Your task to perform on an android device: Search for "asus rog" on ebay.com, select the first entry, and add it to the cart. Image 0: 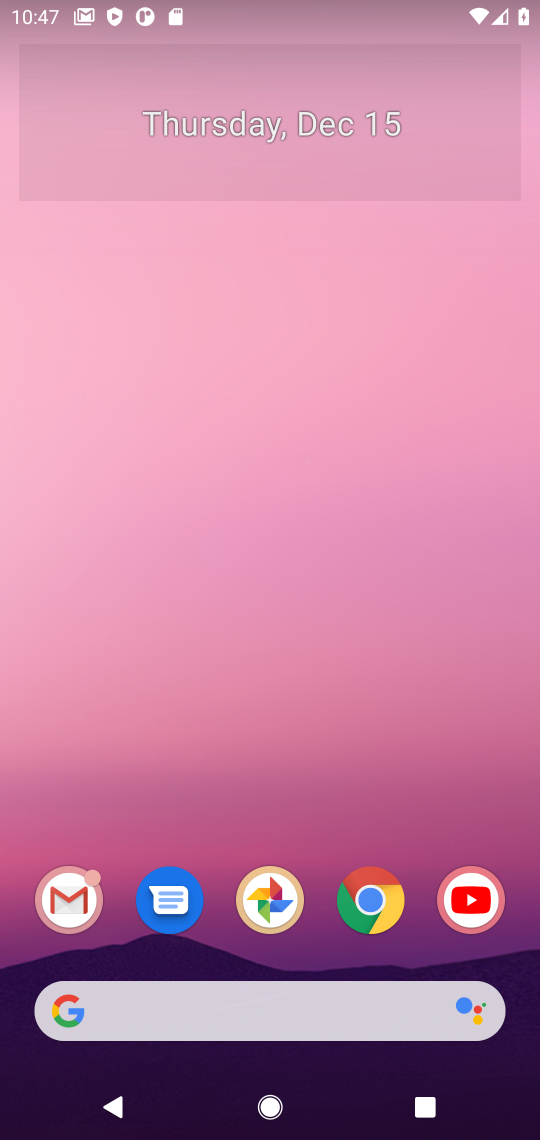
Step 0: click (377, 905)
Your task to perform on an android device: Search for "asus rog" on ebay.com, select the first entry, and add it to the cart. Image 1: 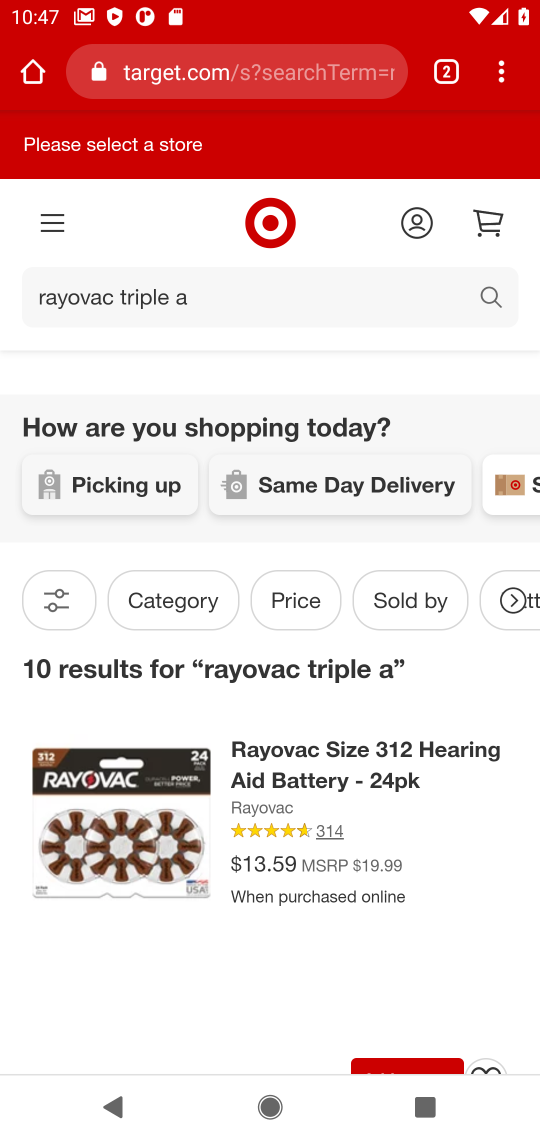
Step 1: click (174, 90)
Your task to perform on an android device: Search for "asus rog" on ebay.com, select the first entry, and add it to the cart. Image 2: 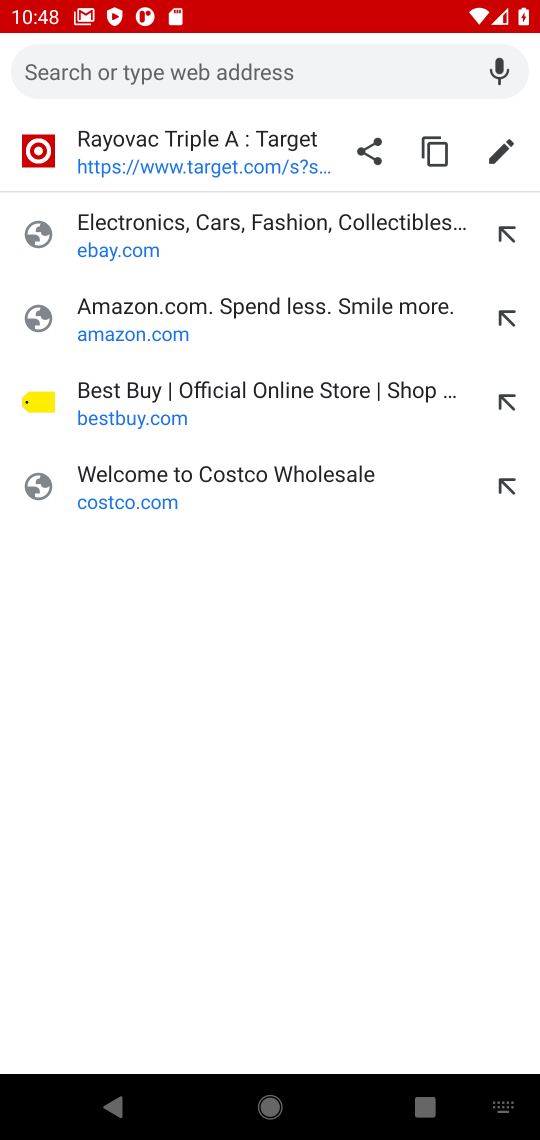
Step 2: type "ebay.com"
Your task to perform on an android device: Search for "asus rog" on ebay.com, select the first entry, and add it to the cart. Image 3: 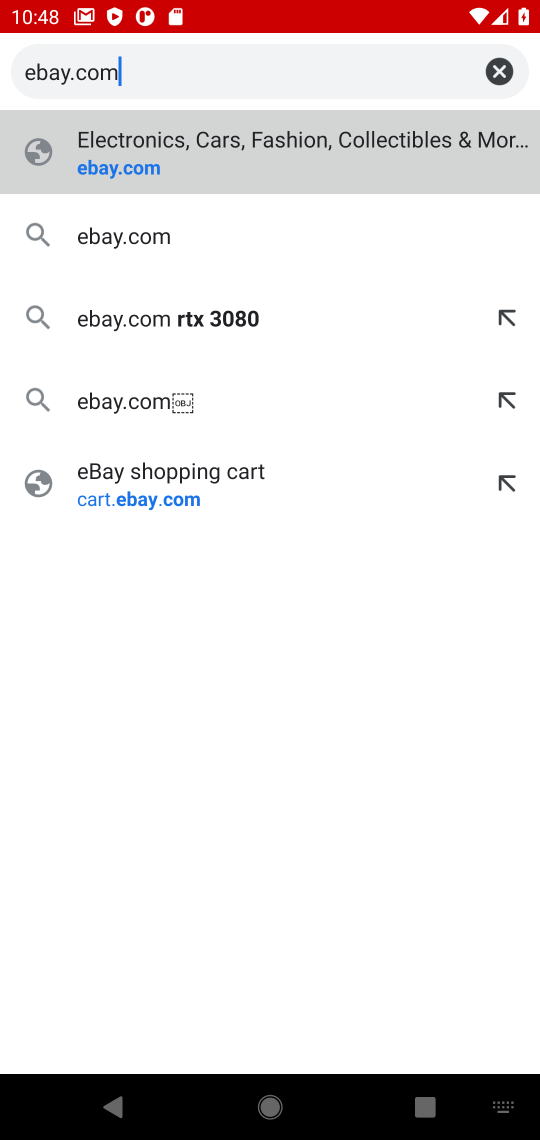
Step 3: click (166, 169)
Your task to perform on an android device: Search for "asus rog" on ebay.com, select the first entry, and add it to the cart. Image 4: 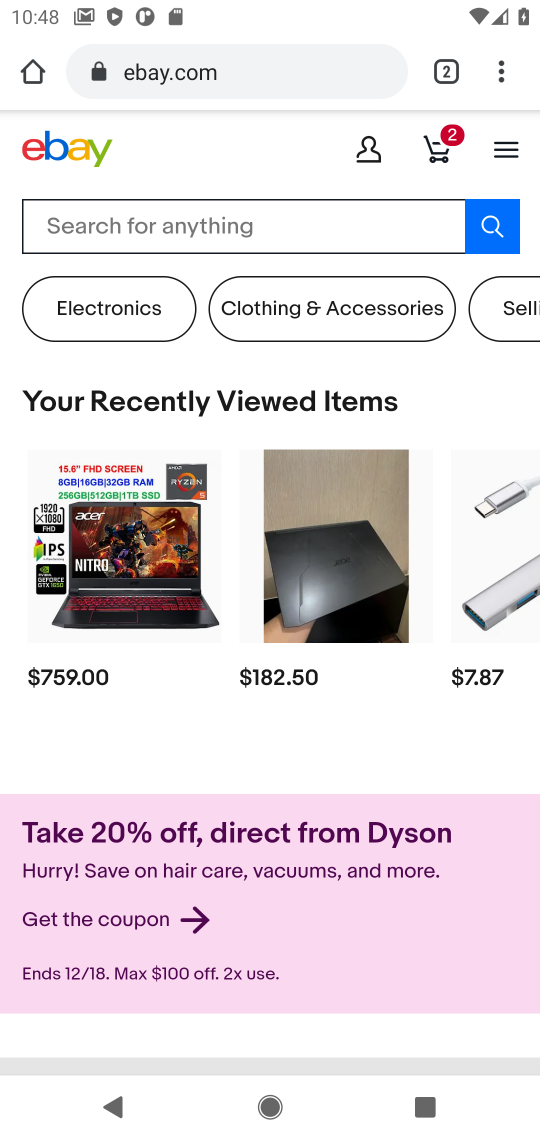
Step 4: click (166, 169)
Your task to perform on an android device: Search for "asus rog" on ebay.com, select the first entry, and add it to the cart. Image 5: 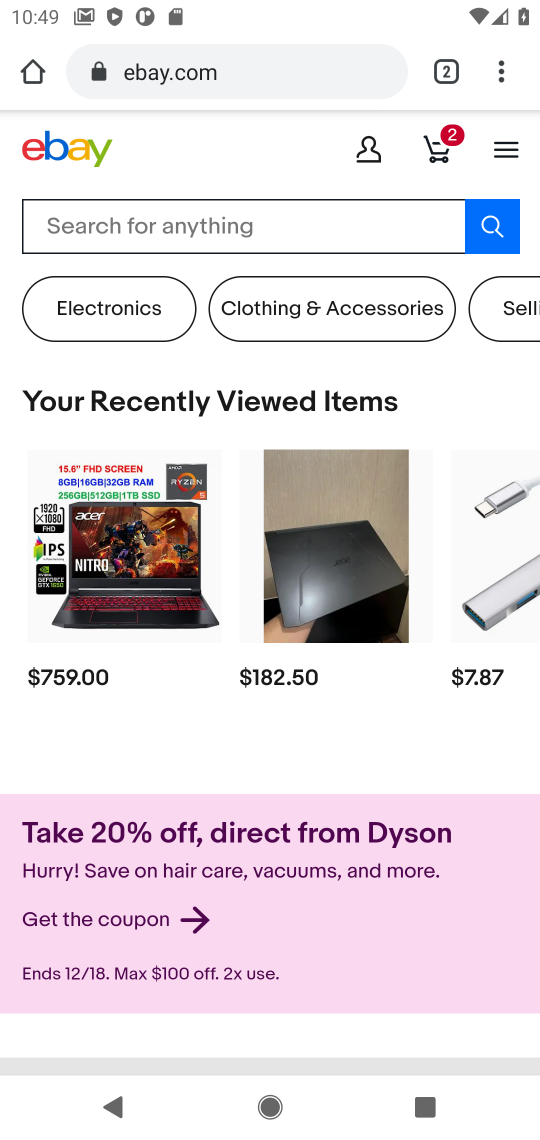
Step 5: click (253, 245)
Your task to perform on an android device: Search for "asus rog" on ebay.com, select the first entry, and add it to the cart. Image 6: 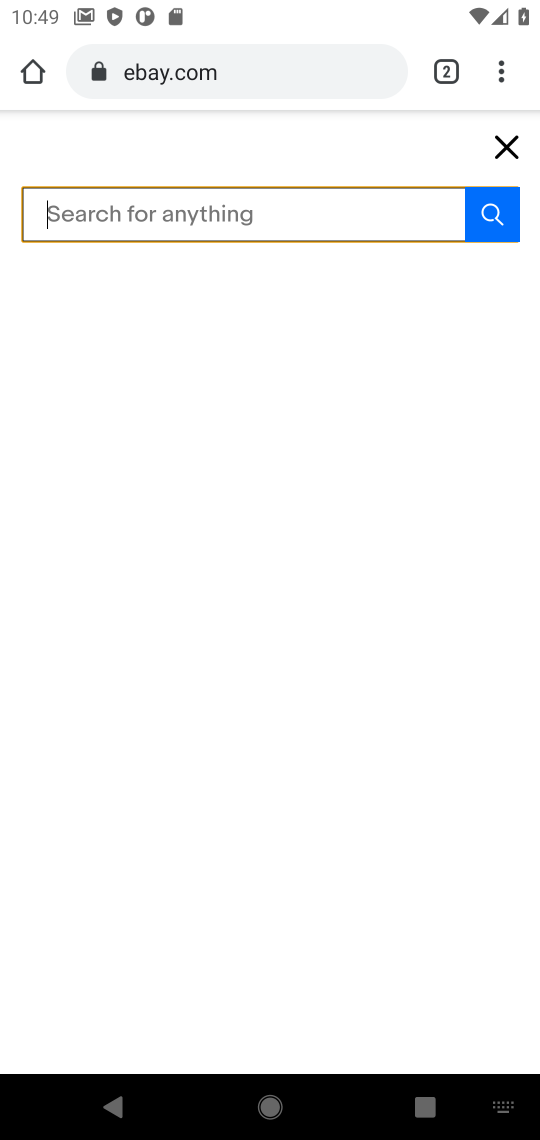
Step 6: type "asus rog"
Your task to perform on an android device: Search for "asus rog" on ebay.com, select the first entry, and add it to the cart. Image 7: 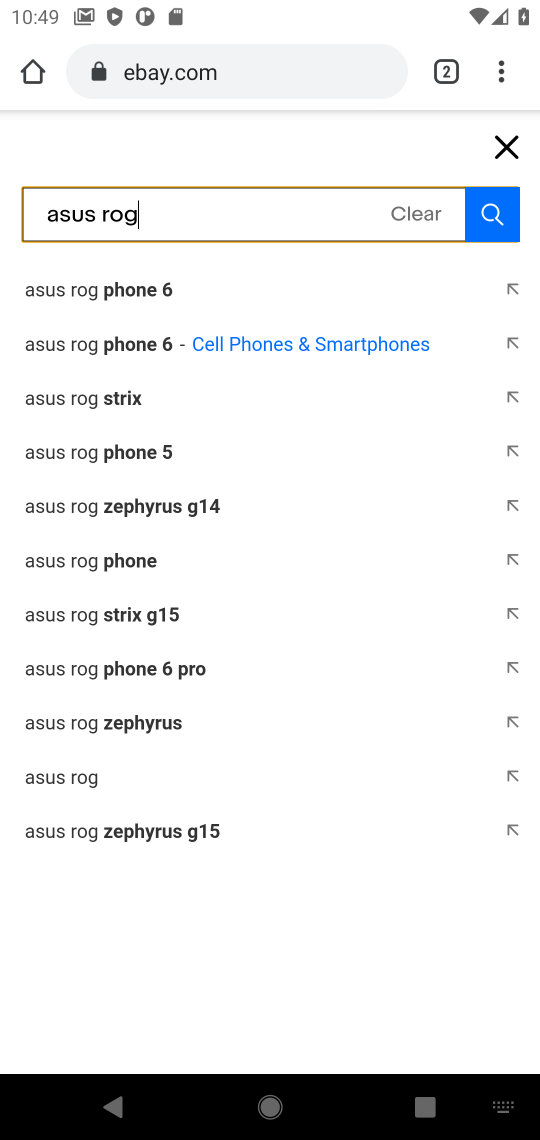
Step 7: click (502, 227)
Your task to perform on an android device: Search for "asus rog" on ebay.com, select the first entry, and add it to the cart. Image 8: 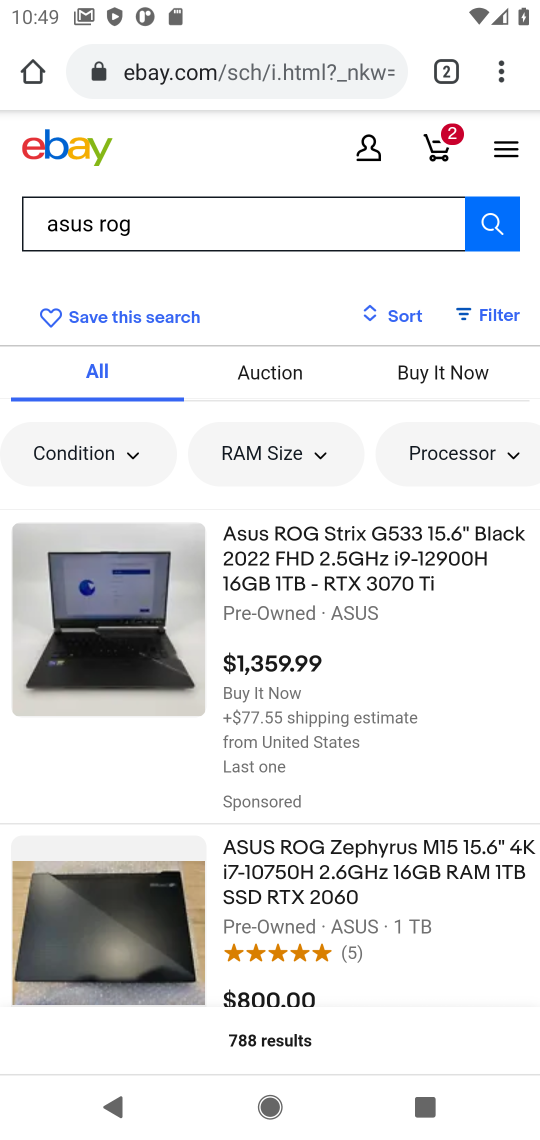
Step 8: click (290, 591)
Your task to perform on an android device: Search for "asus rog" on ebay.com, select the first entry, and add it to the cart. Image 9: 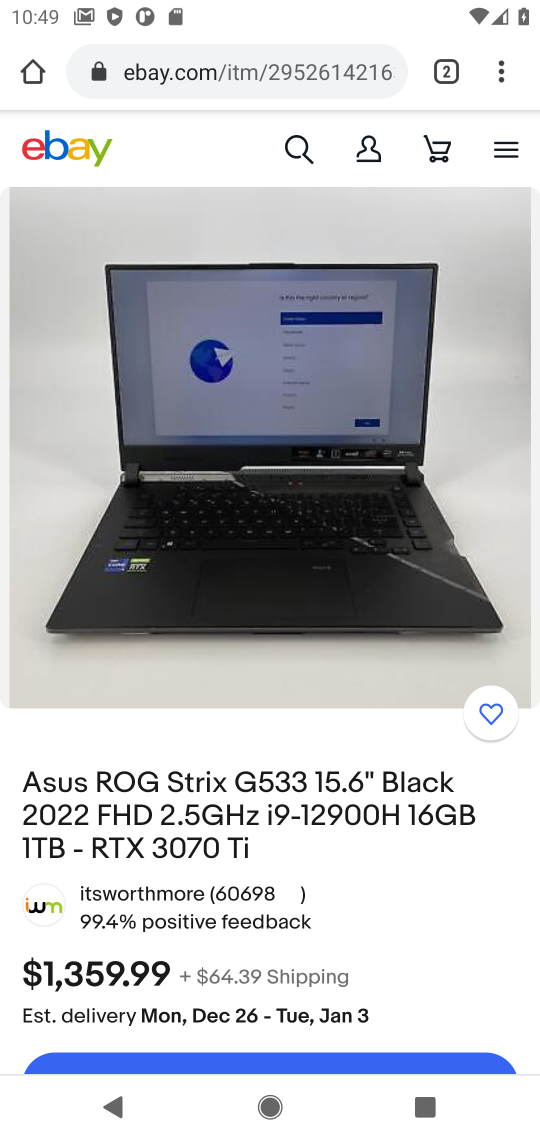
Step 9: drag from (367, 870) to (294, 613)
Your task to perform on an android device: Search for "asus rog" on ebay.com, select the first entry, and add it to the cart. Image 10: 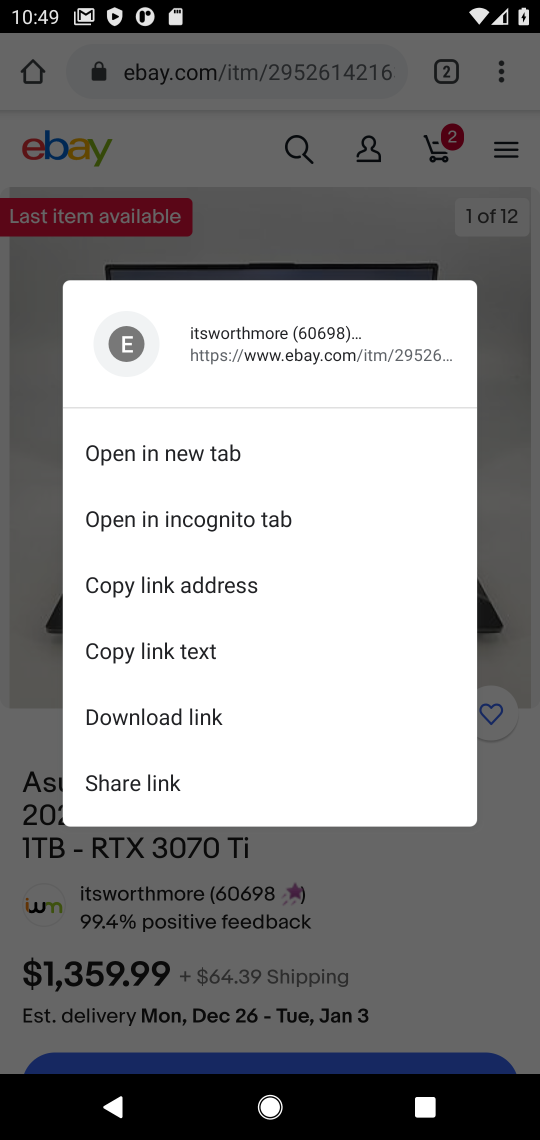
Step 10: click (404, 914)
Your task to perform on an android device: Search for "asus rog" on ebay.com, select the first entry, and add it to the cart. Image 11: 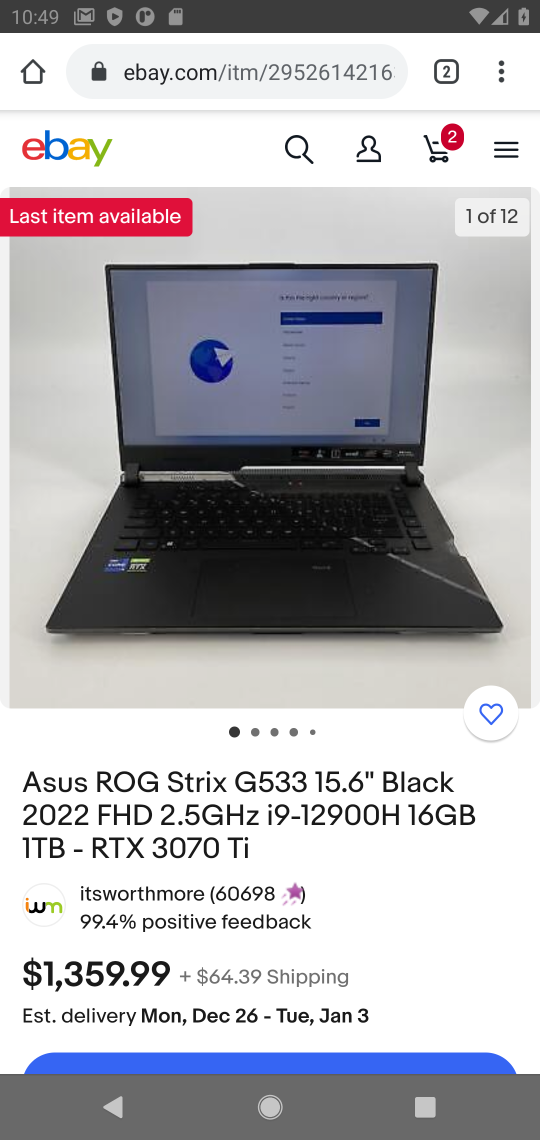
Step 11: drag from (404, 914) to (384, 575)
Your task to perform on an android device: Search for "asus rog" on ebay.com, select the first entry, and add it to the cart. Image 12: 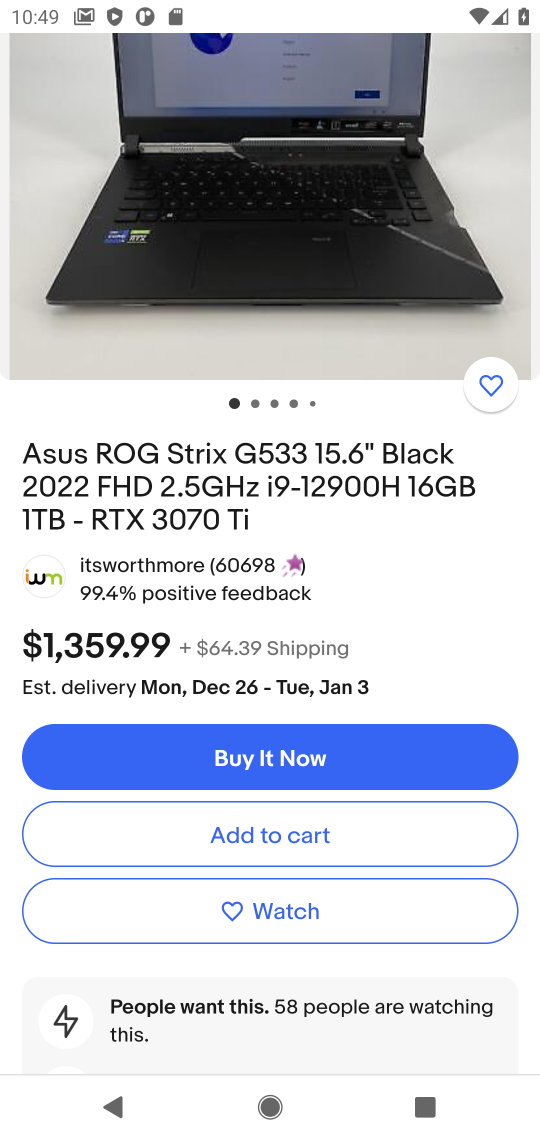
Step 12: click (244, 838)
Your task to perform on an android device: Search for "asus rog" on ebay.com, select the first entry, and add it to the cart. Image 13: 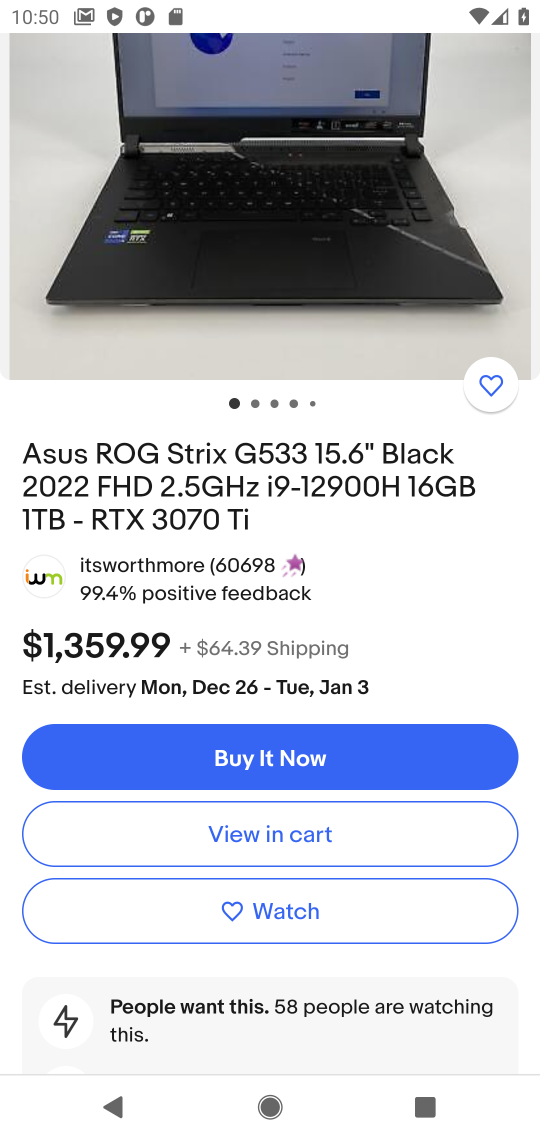
Step 13: click (244, 838)
Your task to perform on an android device: Search for "asus rog" on ebay.com, select the first entry, and add it to the cart. Image 14: 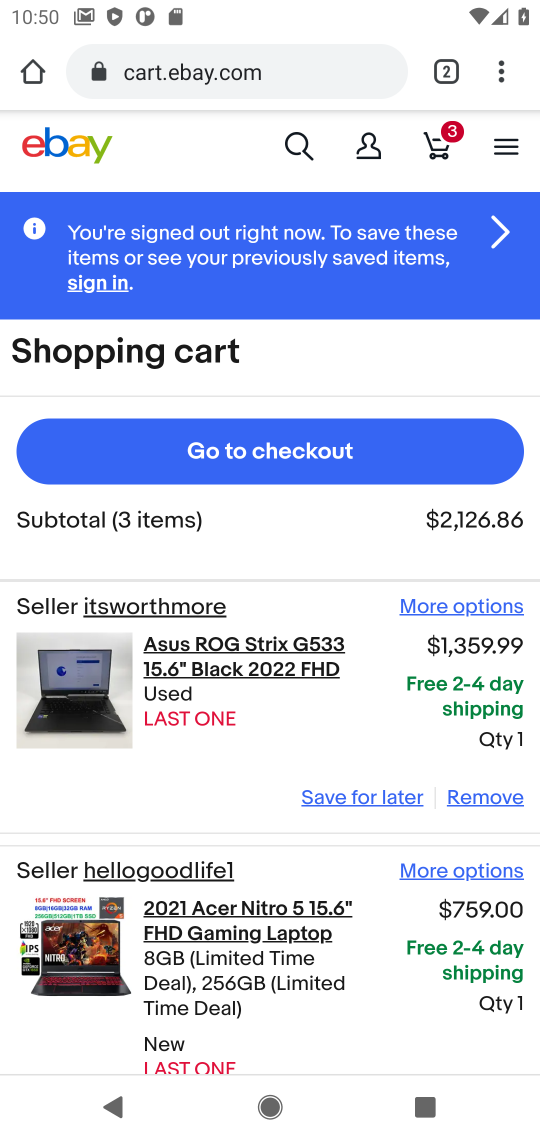
Step 14: task complete